Your task to perform on an android device: Open Youtube and go to "Your channel" Image 0: 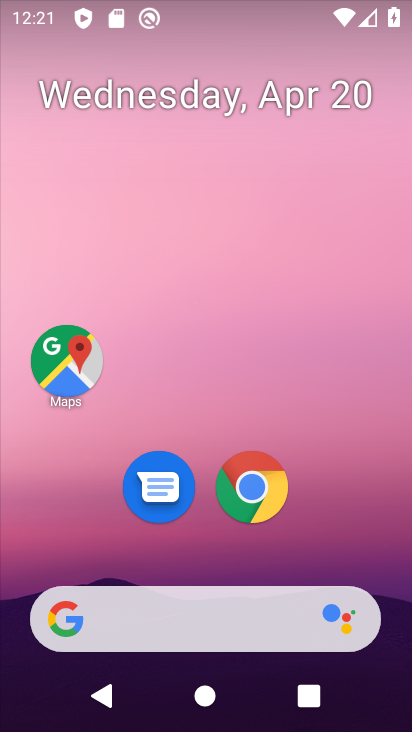
Step 0: drag from (359, 540) to (282, 65)
Your task to perform on an android device: Open Youtube and go to "Your channel" Image 1: 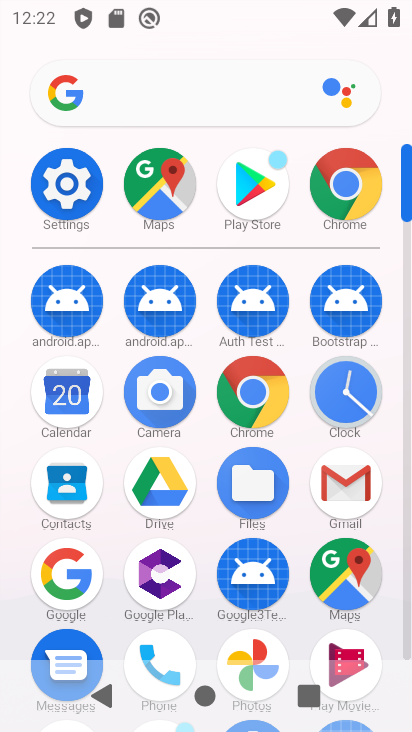
Step 1: click (408, 655)
Your task to perform on an android device: Open Youtube and go to "Your channel" Image 2: 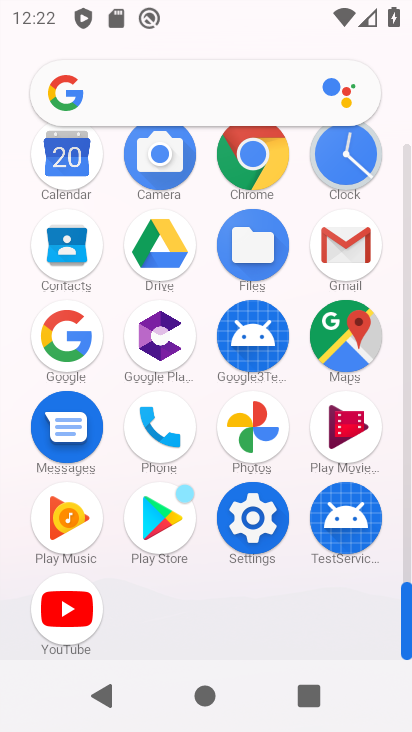
Step 2: click (74, 615)
Your task to perform on an android device: Open Youtube and go to "Your channel" Image 3: 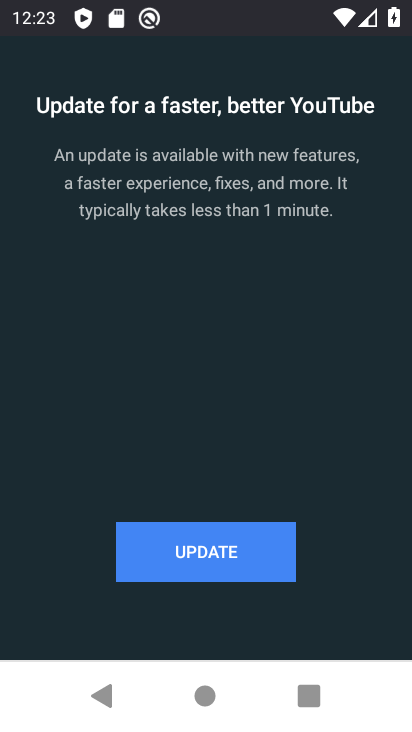
Step 3: click (169, 532)
Your task to perform on an android device: Open Youtube and go to "Your channel" Image 4: 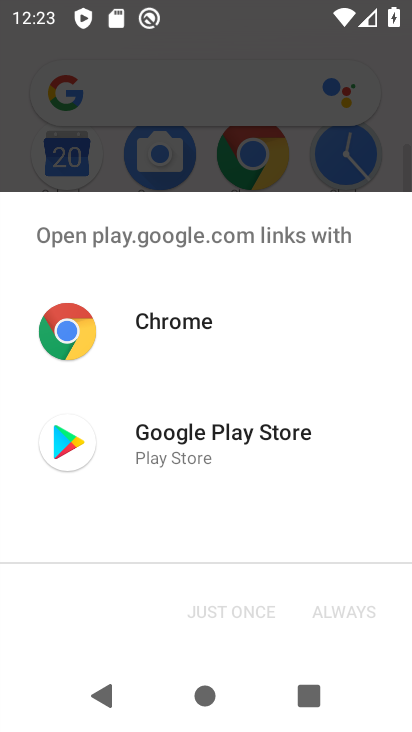
Step 4: click (148, 441)
Your task to perform on an android device: Open Youtube and go to "Your channel" Image 5: 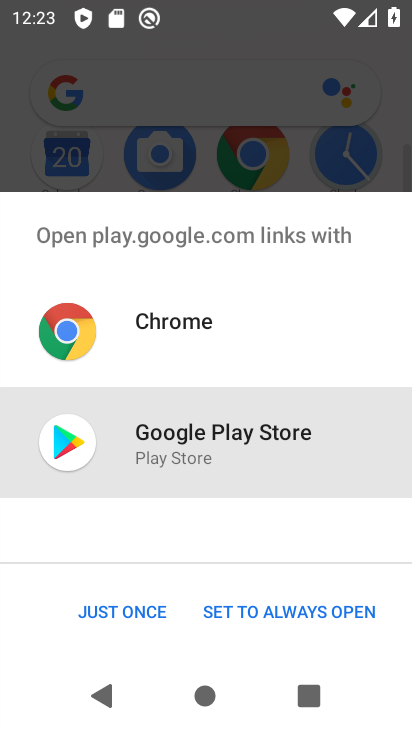
Step 5: click (120, 598)
Your task to perform on an android device: Open Youtube and go to "Your channel" Image 6: 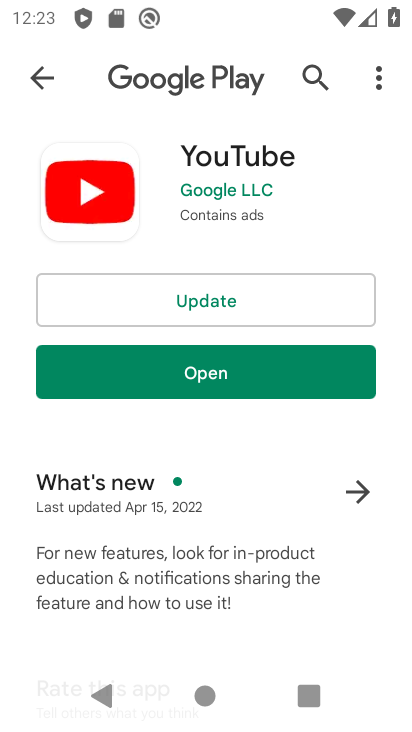
Step 6: click (153, 286)
Your task to perform on an android device: Open Youtube and go to "Your channel" Image 7: 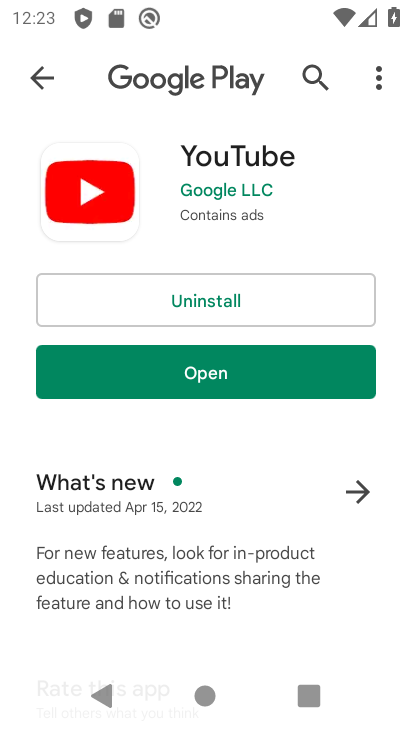
Step 7: click (130, 366)
Your task to perform on an android device: Open Youtube and go to "Your channel" Image 8: 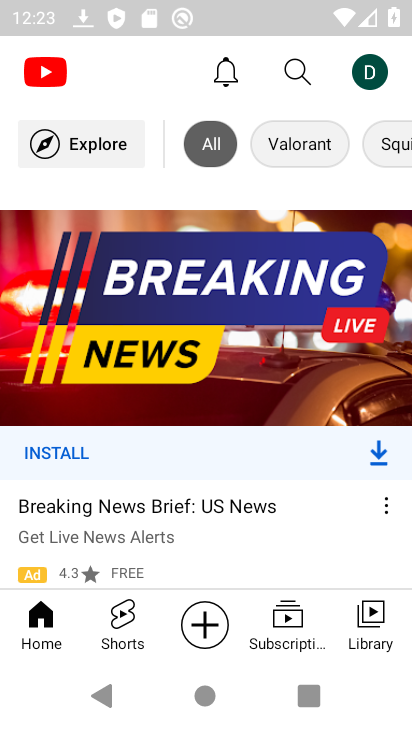
Step 8: click (371, 76)
Your task to perform on an android device: Open Youtube and go to "Your channel" Image 9: 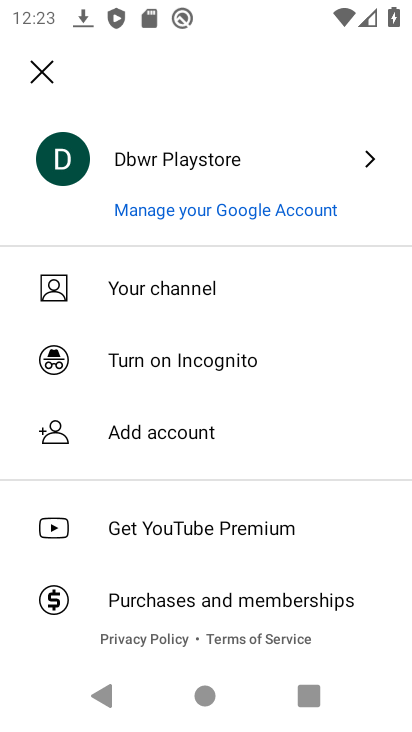
Step 9: click (142, 162)
Your task to perform on an android device: Open Youtube and go to "Your channel" Image 10: 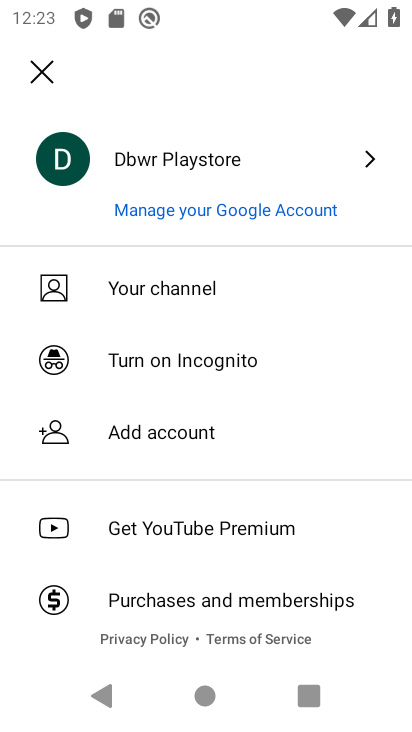
Step 10: click (192, 279)
Your task to perform on an android device: Open Youtube and go to "Your channel" Image 11: 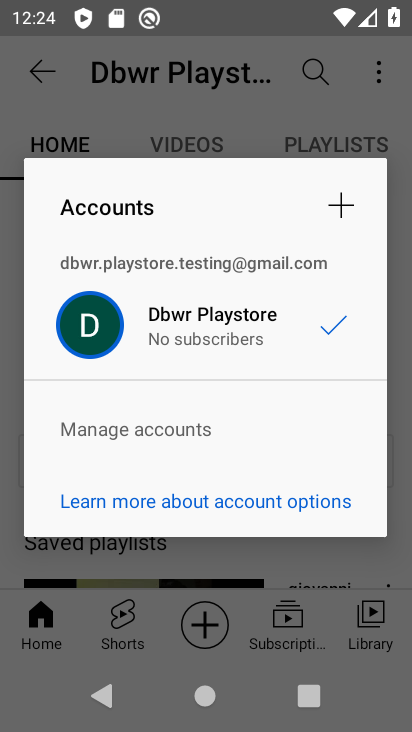
Step 11: task complete